Your task to perform on an android device: turn off improve location accuracy Image 0: 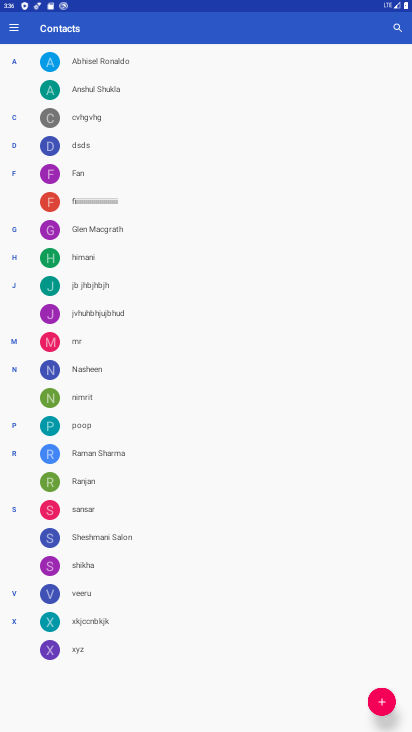
Step 0: press home button
Your task to perform on an android device: turn off improve location accuracy Image 1: 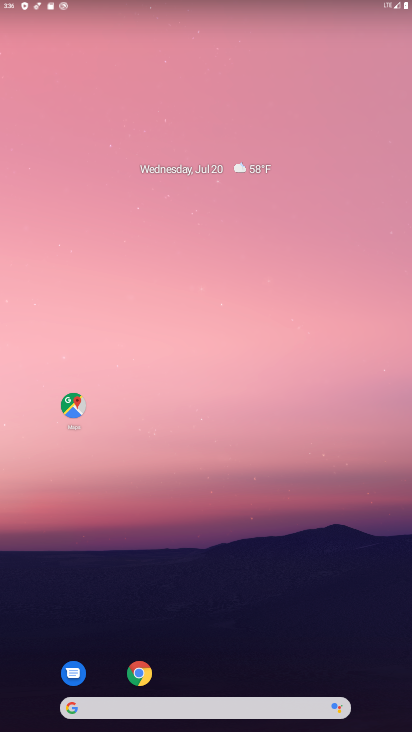
Step 1: drag from (296, 362) to (316, 275)
Your task to perform on an android device: turn off improve location accuracy Image 2: 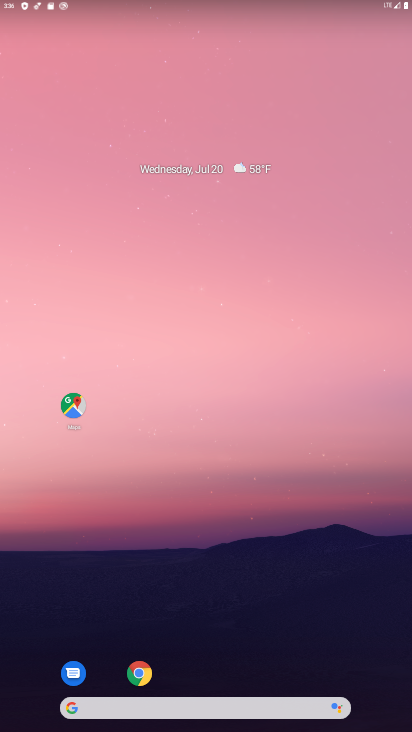
Step 2: drag from (322, 644) to (309, 325)
Your task to perform on an android device: turn off improve location accuracy Image 3: 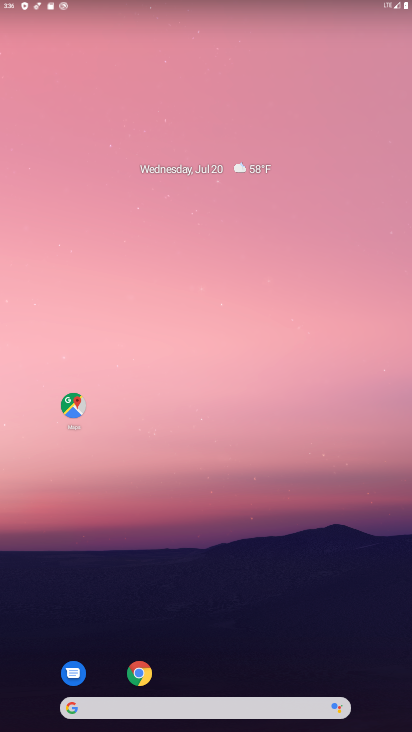
Step 3: drag from (235, 501) to (217, 130)
Your task to perform on an android device: turn off improve location accuracy Image 4: 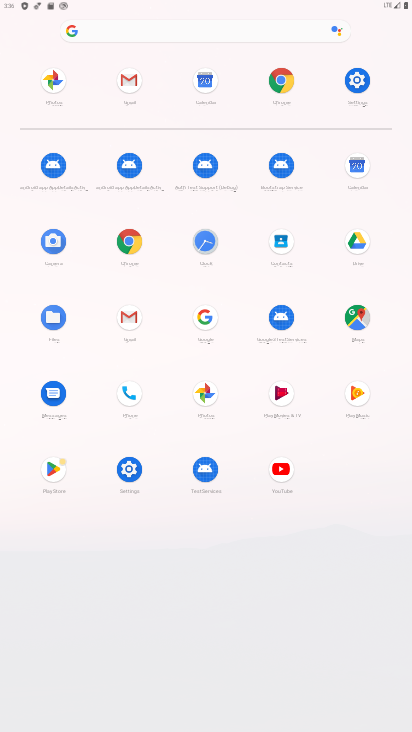
Step 4: click (355, 81)
Your task to perform on an android device: turn off improve location accuracy Image 5: 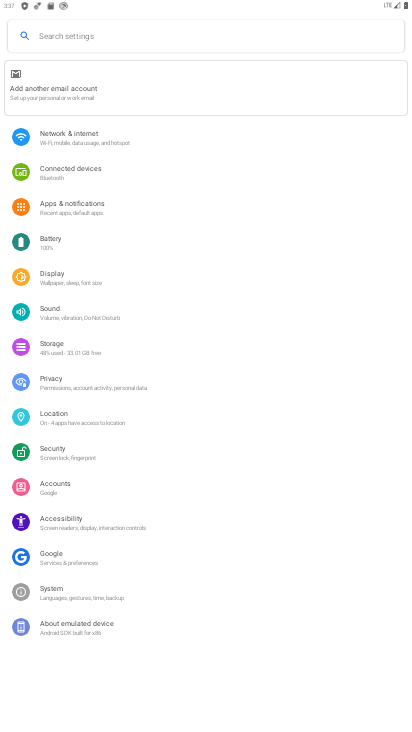
Step 5: click (68, 408)
Your task to perform on an android device: turn off improve location accuracy Image 6: 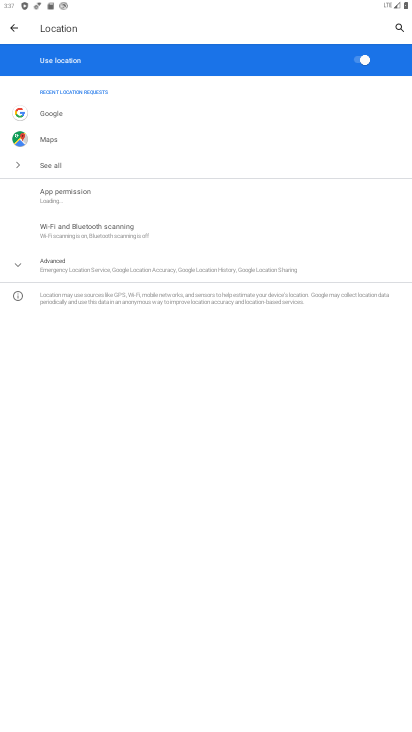
Step 6: task complete